Your task to perform on an android device: stop showing notifications on the lock screen Image 0: 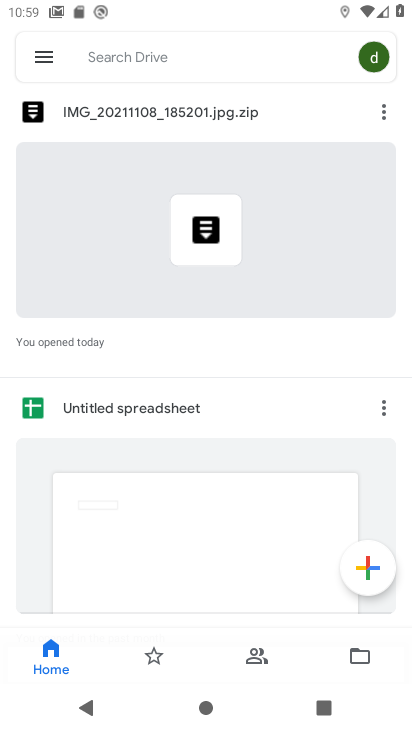
Step 0: press home button
Your task to perform on an android device: stop showing notifications on the lock screen Image 1: 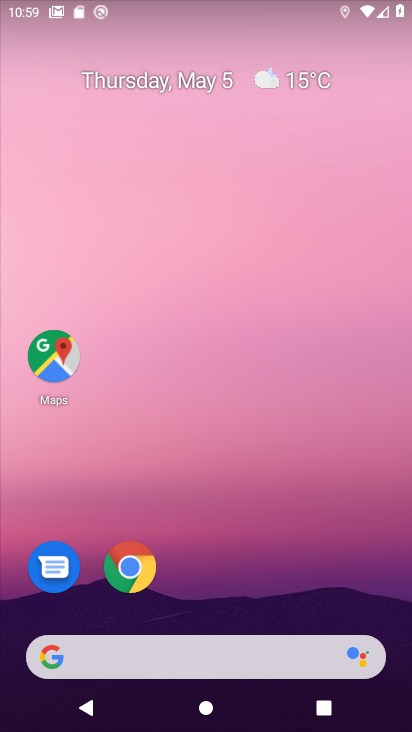
Step 1: drag from (311, 608) to (378, 3)
Your task to perform on an android device: stop showing notifications on the lock screen Image 2: 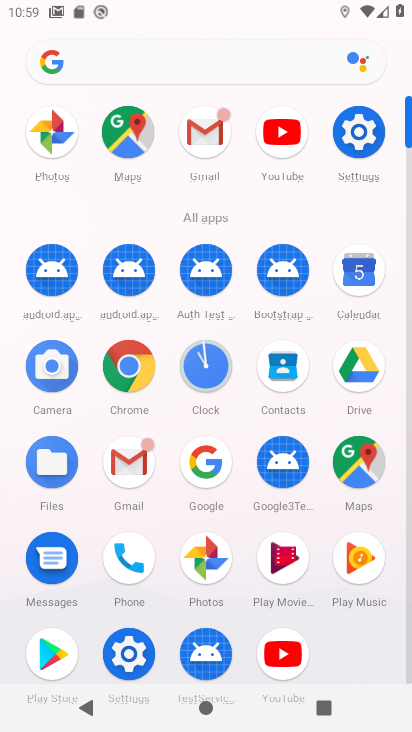
Step 2: click (359, 132)
Your task to perform on an android device: stop showing notifications on the lock screen Image 3: 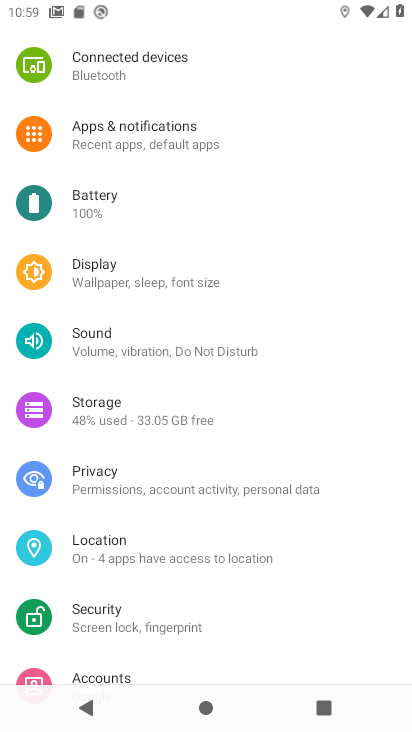
Step 3: click (167, 134)
Your task to perform on an android device: stop showing notifications on the lock screen Image 4: 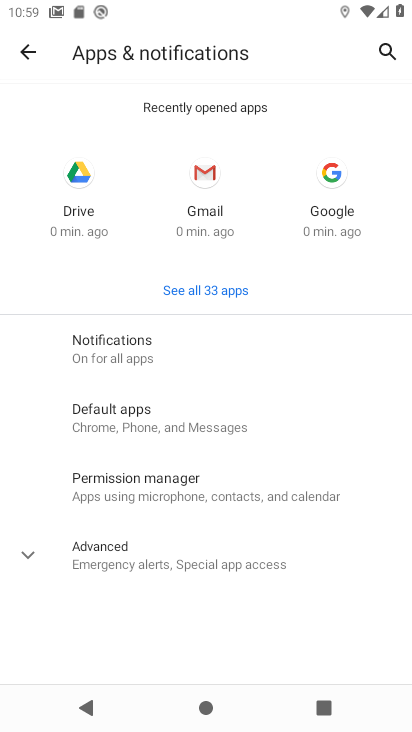
Step 4: click (108, 349)
Your task to perform on an android device: stop showing notifications on the lock screen Image 5: 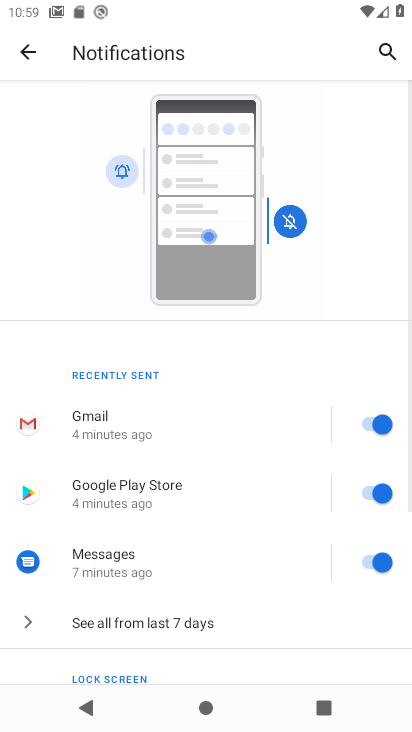
Step 5: drag from (225, 554) to (249, 59)
Your task to perform on an android device: stop showing notifications on the lock screen Image 6: 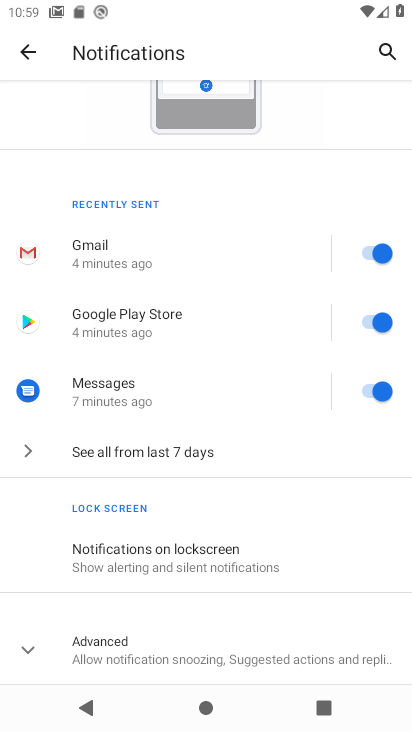
Step 6: click (112, 558)
Your task to perform on an android device: stop showing notifications on the lock screen Image 7: 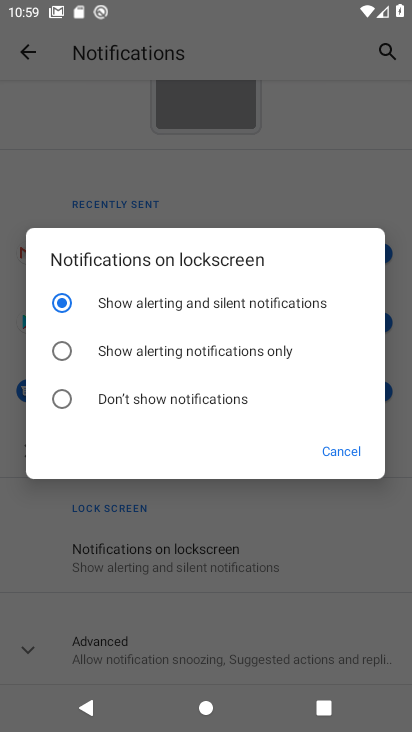
Step 7: click (68, 402)
Your task to perform on an android device: stop showing notifications on the lock screen Image 8: 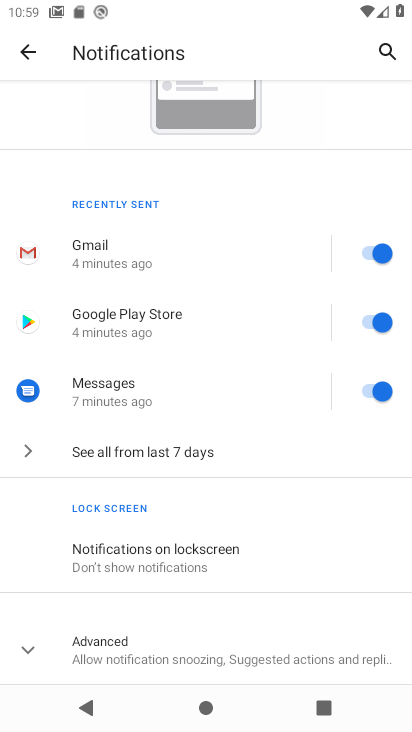
Step 8: task complete